Your task to perform on an android device: check data usage Image 0: 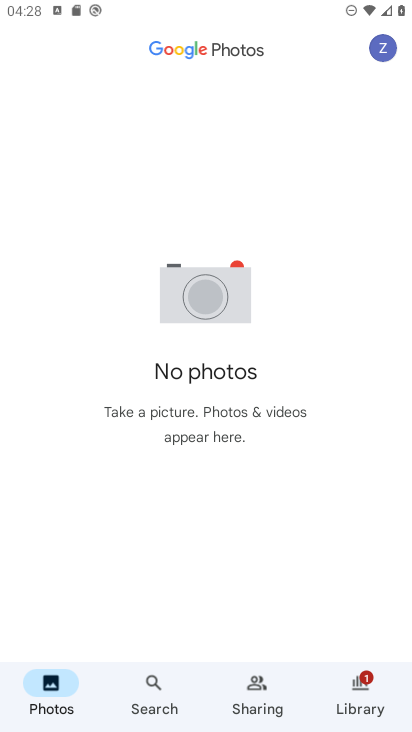
Step 0: press home button
Your task to perform on an android device: check data usage Image 1: 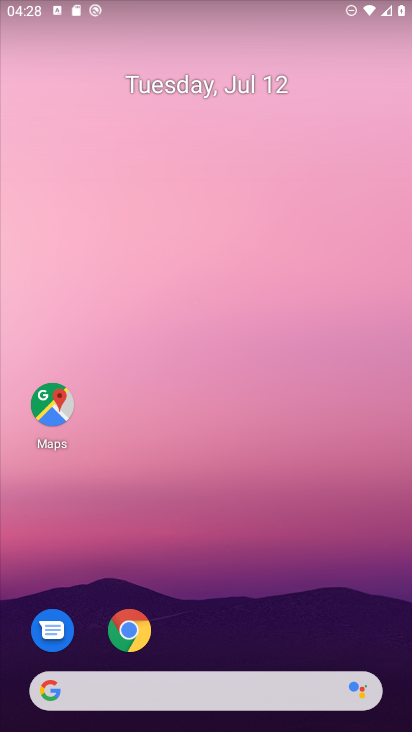
Step 1: drag from (394, 659) to (338, 93)
Your task to perform on an android device: check data usage Image 2: 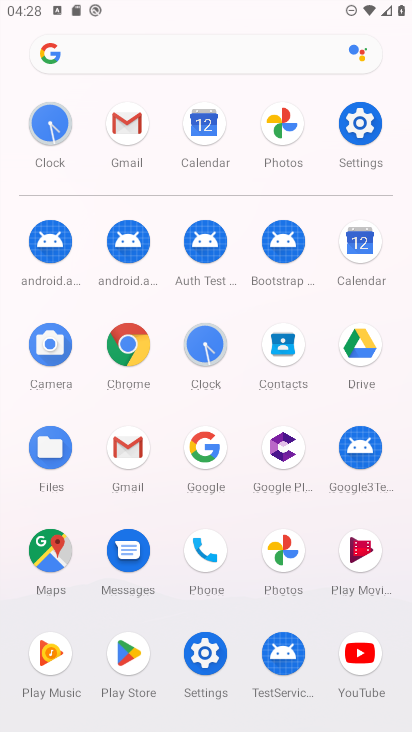
Step 2: click (205, 656)
Your task to perform on an android device: check data usage Image 3: 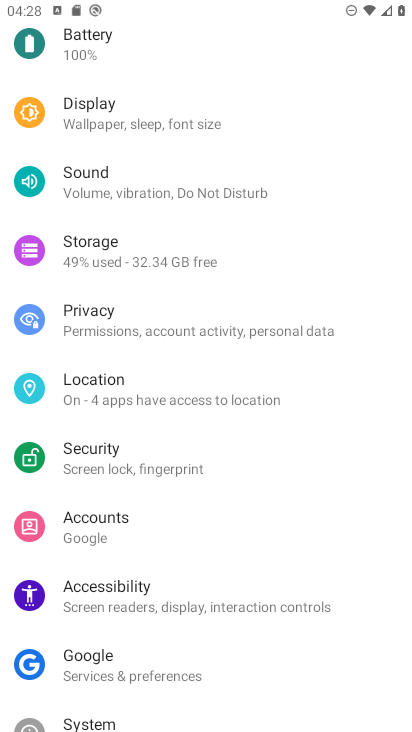
Step 3: drag from (315, 118) to (350, 358)
Your task to perform on an android device: check data usage Image 4: 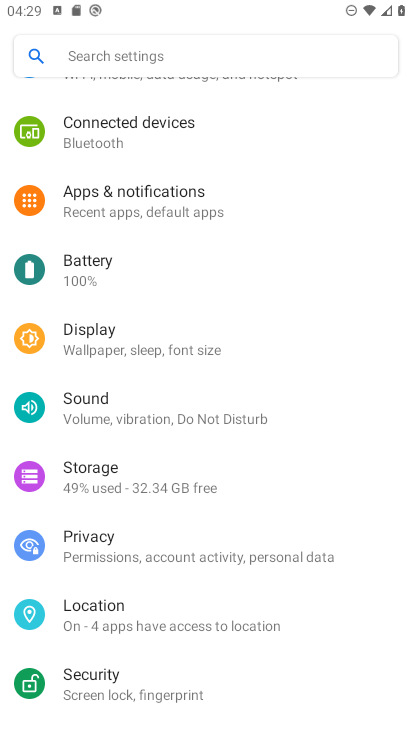
Step 4: drag from (298, 166) to (319, 381)
Your task to perform on an android device: check data usage Image 5: 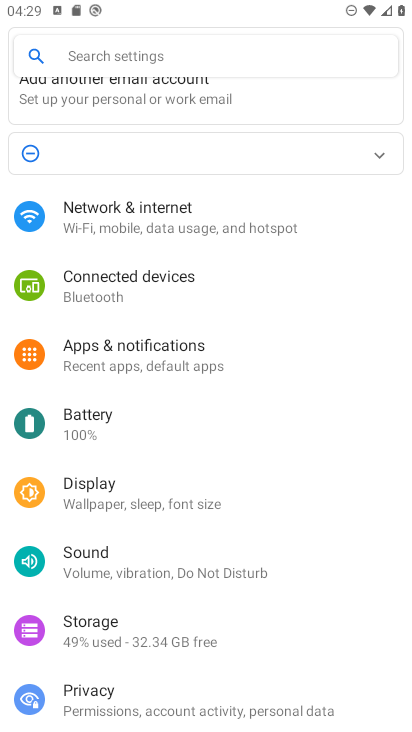
Step 5: click (87, 208)
Your task to perform on an android device: check data usage Image 6: 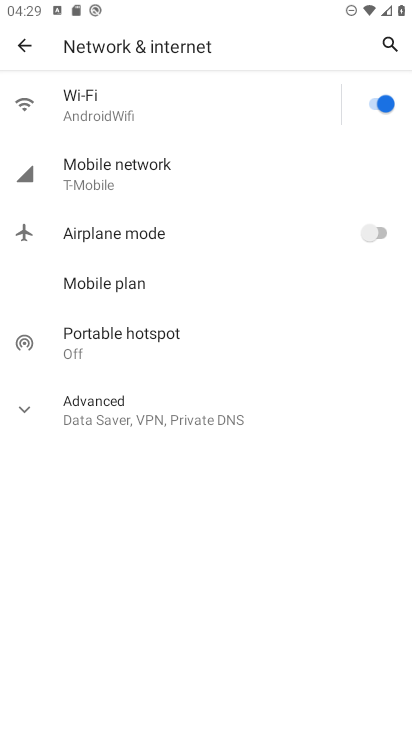
Step 6: click (96, 164)
Your task to perform on an android device: check data usage Image 7: 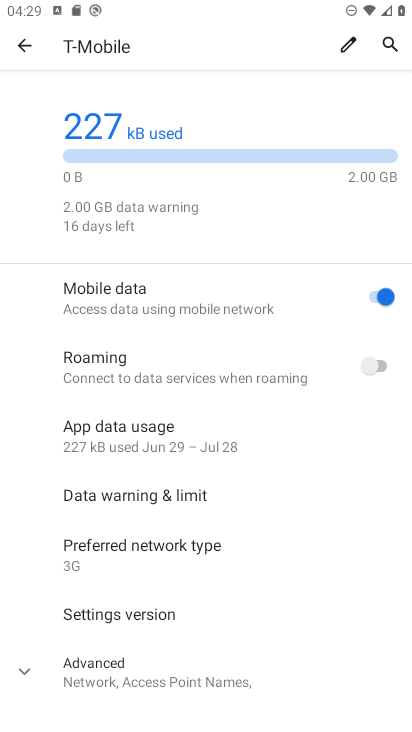
Step 7: task complete